Your task to perform on an android device: Open battery settings Image 0: 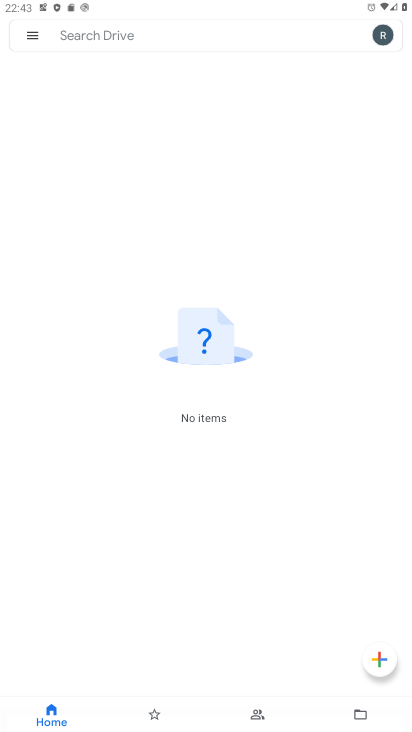
Step 0: drag from (250, 519) to (249, 358)
Your task to perform on an android device: Open battery settings Image 1: 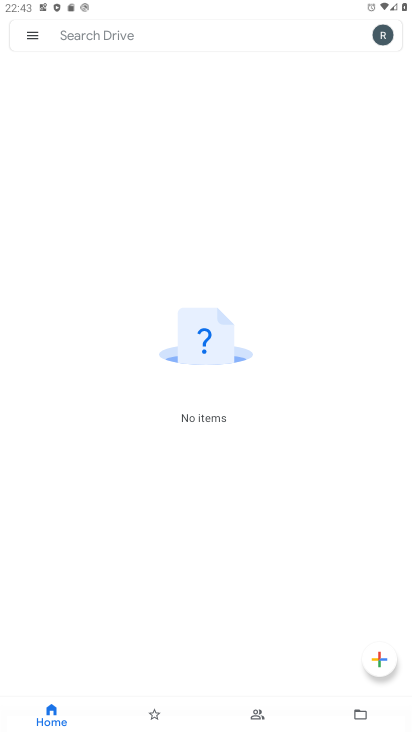
Step 1: drag from (222, 564) to (239, 352)
Your task to perform on an android device: Open battery settings Image 2: 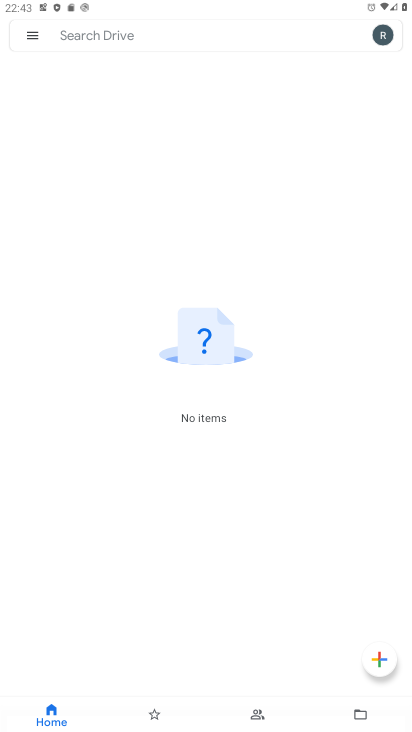
Step 2: drag from (217, 604) to (235, 305)
Your task to perform on an android device: Open battery settings Image 3: 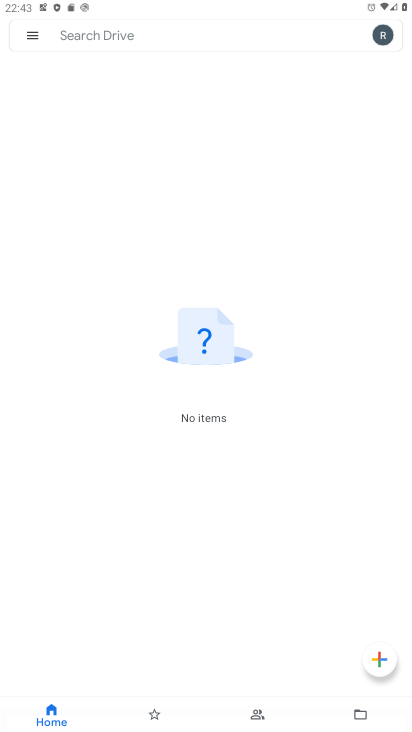
Step 3: drag from (220, 529) to (182, 254)
Your task to perform on an android device: Open battery settings Image 4: 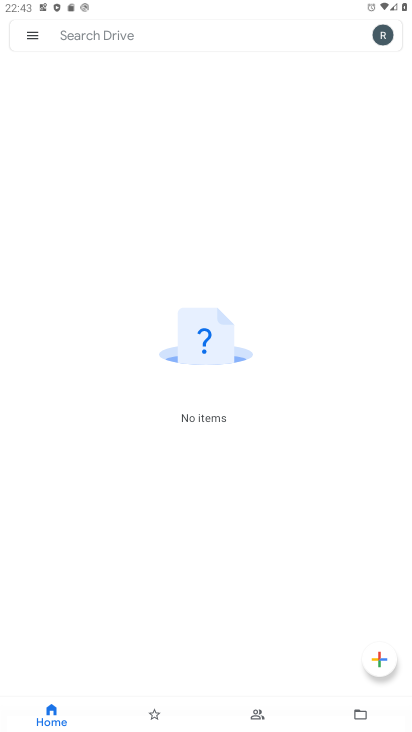
Step 4: click (38, 40)
Your task to perform on an android device: Open battery settings Image 5: 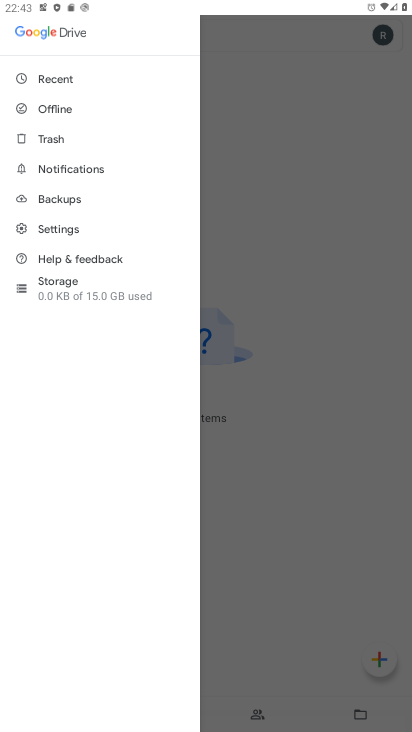
Step 5: click (317, 197)
Your task to perform on an android device: Open battery settings Image 6: 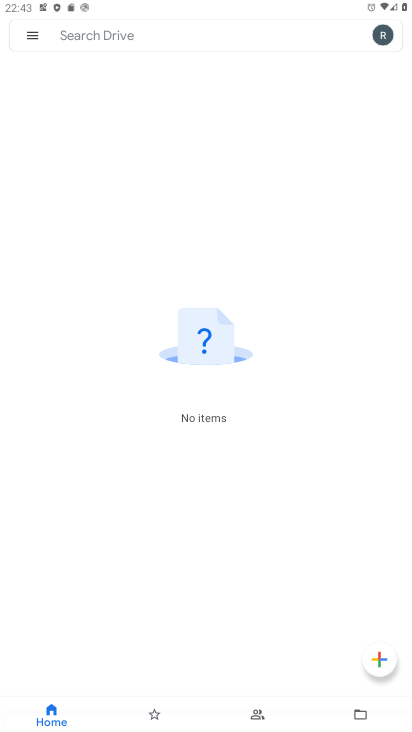
Step 6: press home button
Your task to perform on an android device: Open battery settings Image 7: 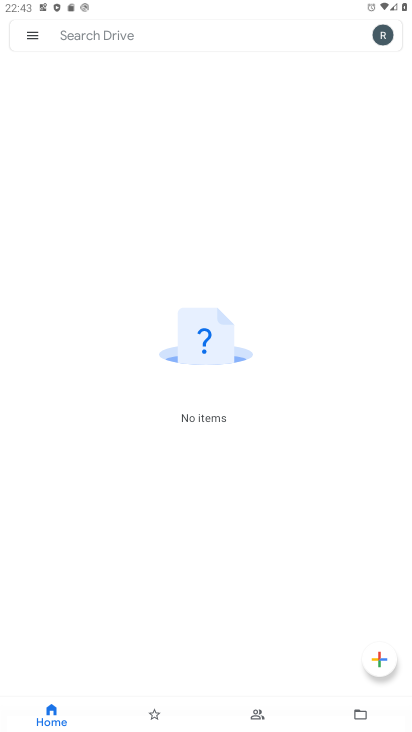
Step 7: press home button
Your task to perform on an android device: Open battery settings Image 8: 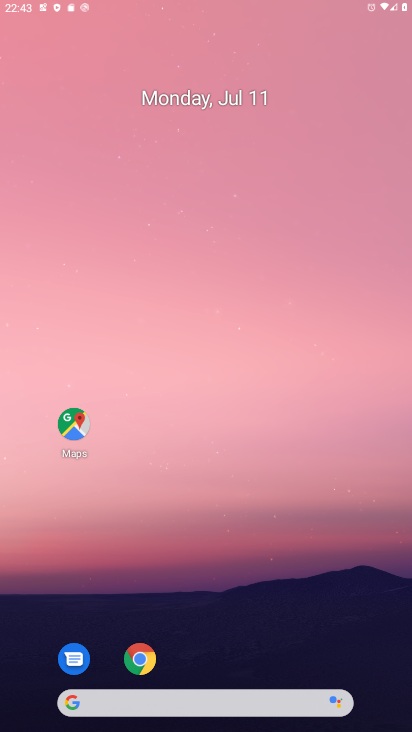
Step 8: drag from (221, 487) to (189, 2)
Your task to perform on an android device: Open battery settings Image 9: 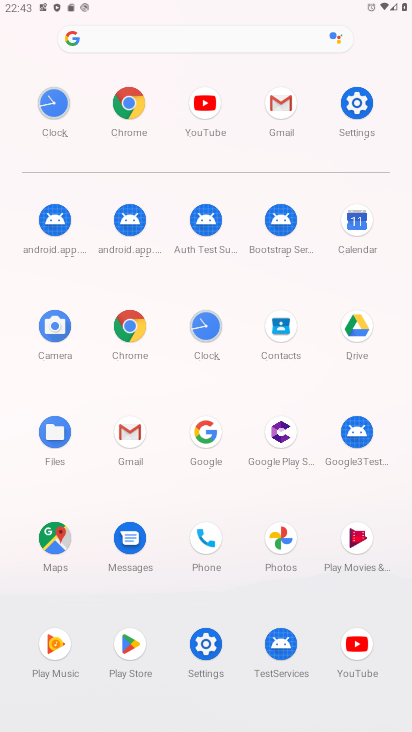
Step 9: click (359, 100)
Your task to perform on an android device: Open battery settings Image 10: 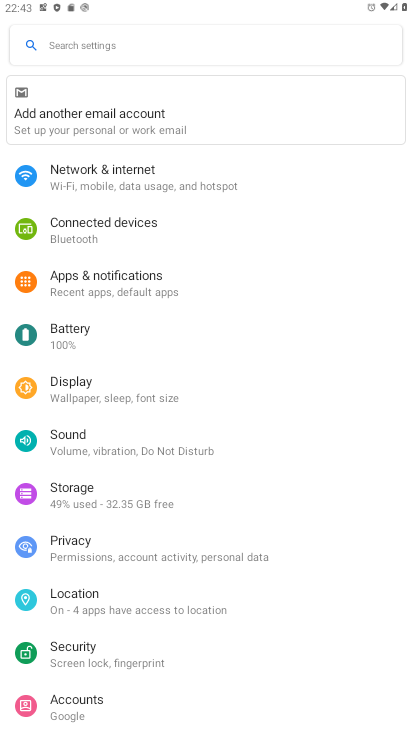
Step 10: click (95, 339)
Your task to perform on an android device: Open battery settings Image 11: 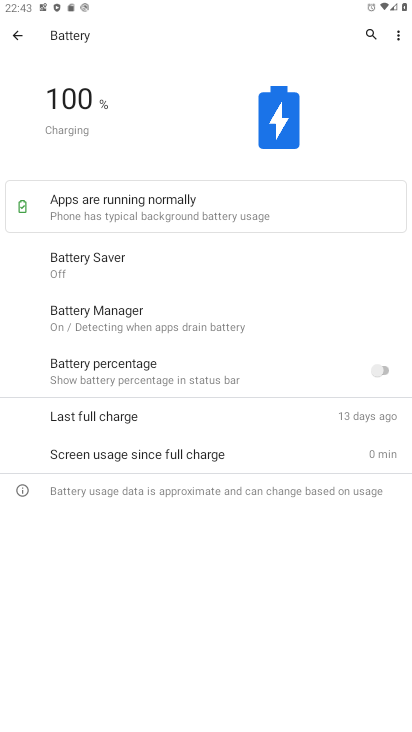
Step 11: task complete